Your task to perform on an android device: read, delete, or share a saved page in the chrome app Image 0: 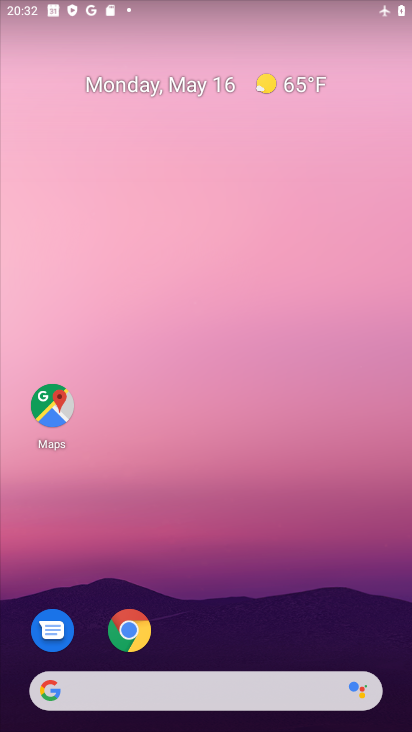
Step 0: click (136, 649)
Your task to perform on an android device: read, delete, or share a saved page in the chrome app Image 1: 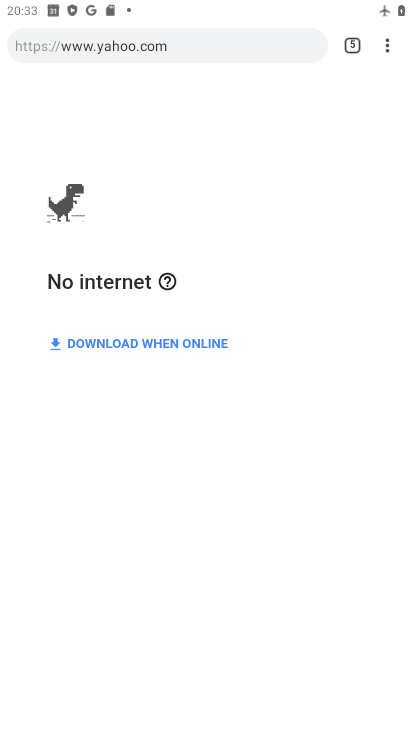
Step 1: drag from (382, 41) to (268, 284)
Your task to perform on an android device: read, delete, or share a saved page in the chrome app Image 2: 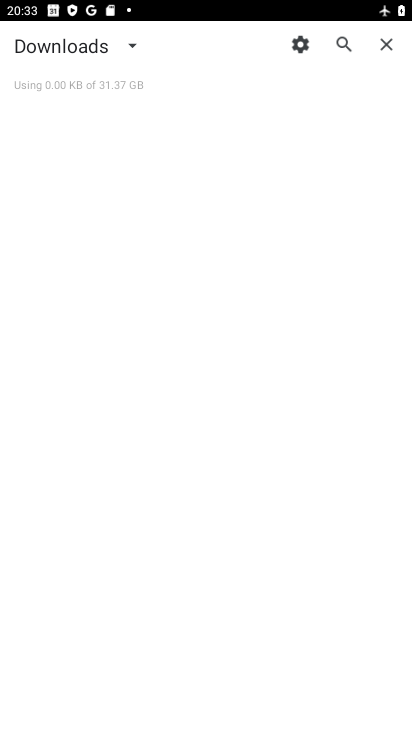
Step 2: click (126, 40)
Your task to perform on an android device: read, delete, or share a saved page in the chrome app Image 3: 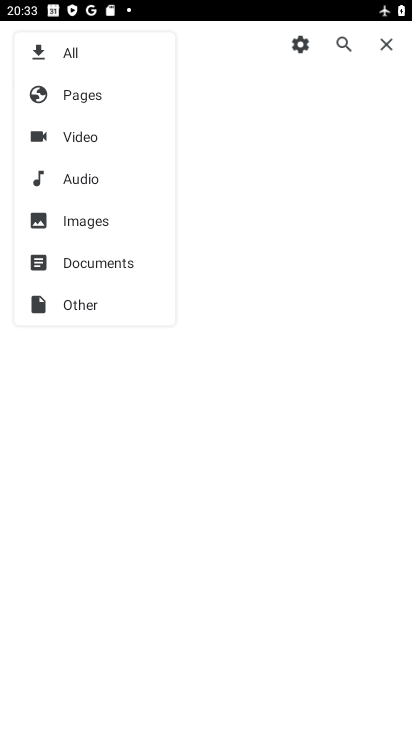
Step 3: click (76, 86)
Your task to perform on an android device: read, delete, or share a saved page in the chrome app Image 4: 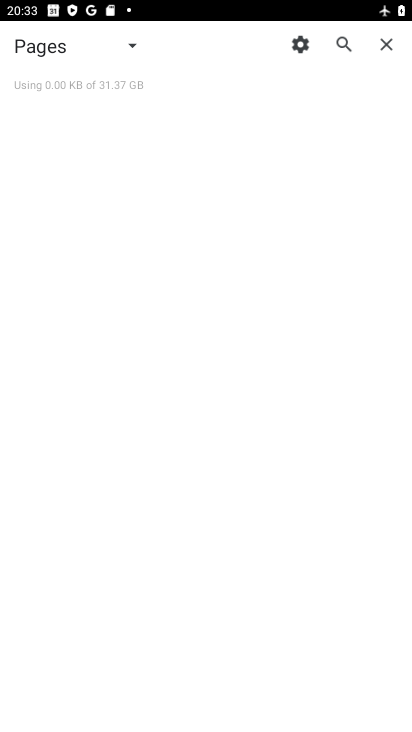
Step 4: task complete